Your task to perform on an android device: turn on data saver in the chrome app Image 0: 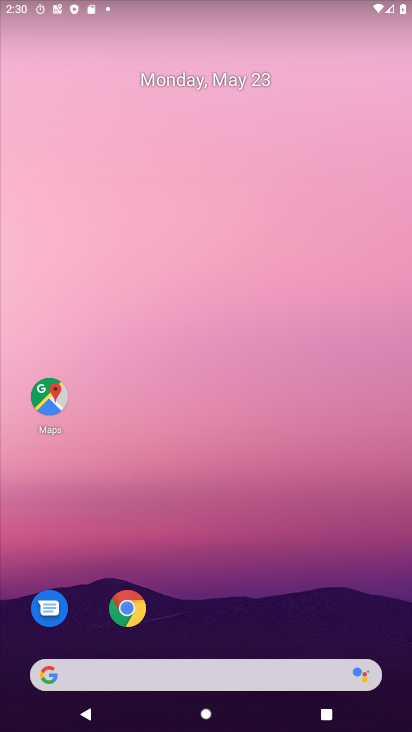
Step 0: drag from (222, 546) to (227, 1)
Your task to perform on an android device: turn on data saver in the chrome app Image 1: 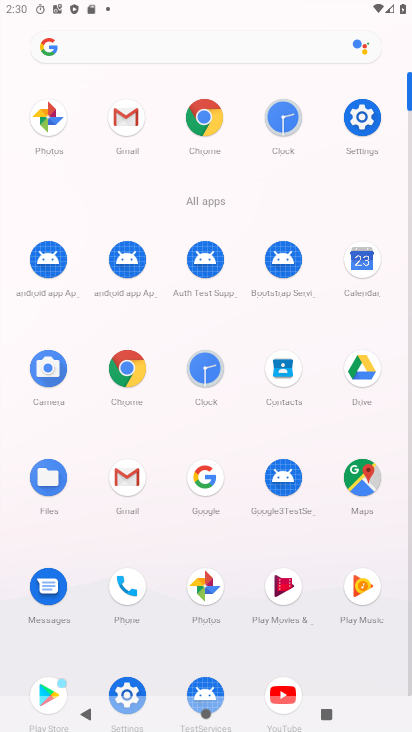
Step 1: click (132, 375)
Your task to perform on an android device: turn on data saver in the chrome app Image 2: 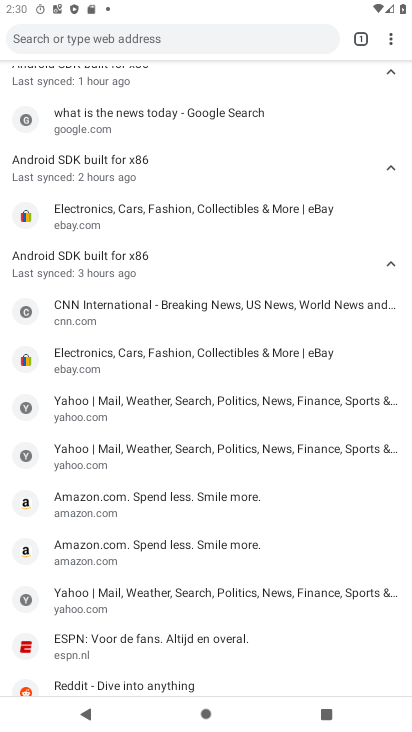
Step 2: click (394, 43)
Your task to perform on an android device: turn on data saver in the chrome app Image 3: 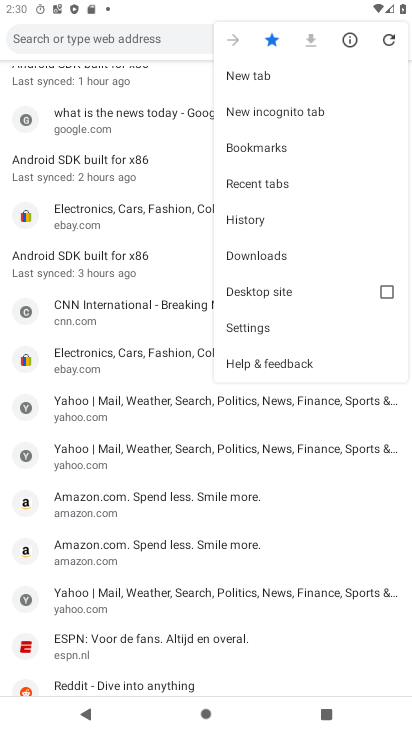
Step 3: click (246, 324)
Your task to perform on an android device: turn on data saver in the chrome app Image 4: 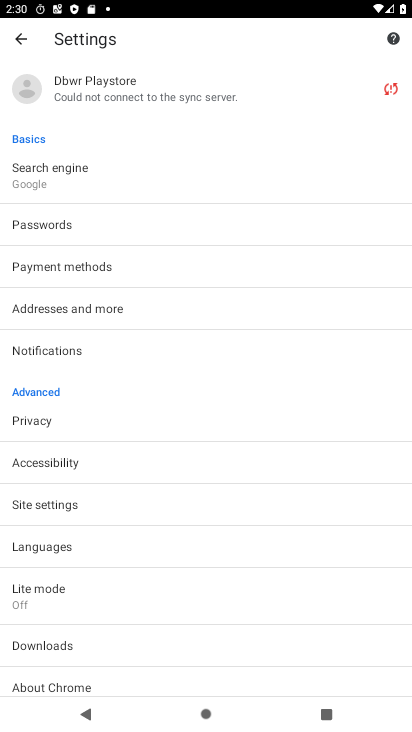
Step 4: click (68, 598)
Your task to perform on an android device: turn on data saver in the chrome app Image 5: 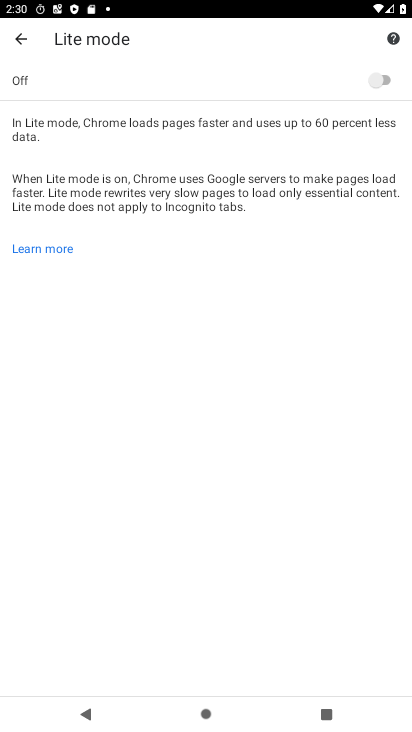
Step 5: click (381, 78)
Your task to perform on an android device: turn on data saver in the chrome app Image 6: 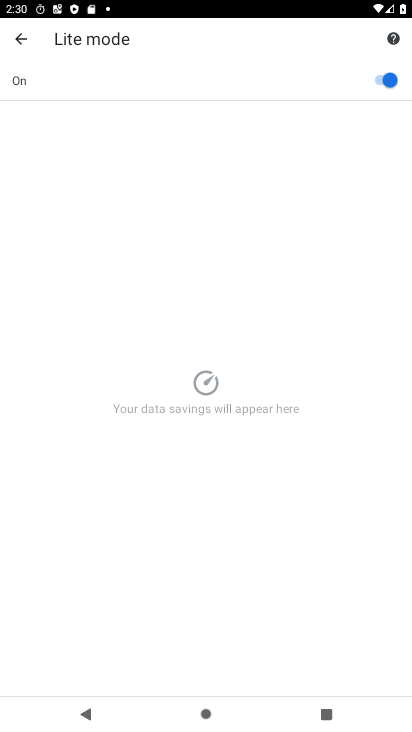
Step 6: task complete